Your task to perform on an android device: change your default location settings in chrome Image 0: 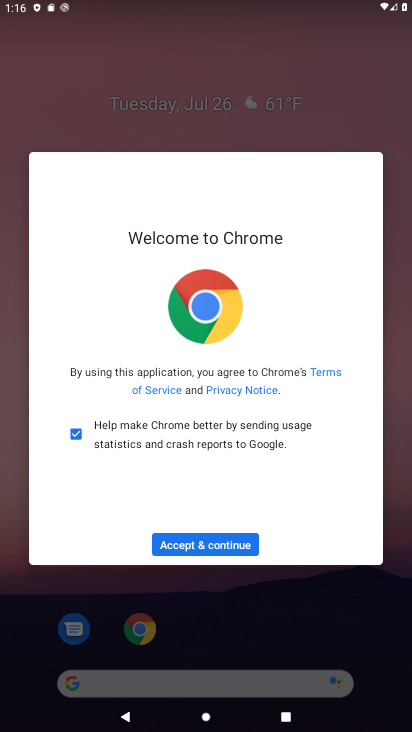
Step 0: click (218, 551)
Your task to perform on an android device: change your default location settings in chrome Image 1: 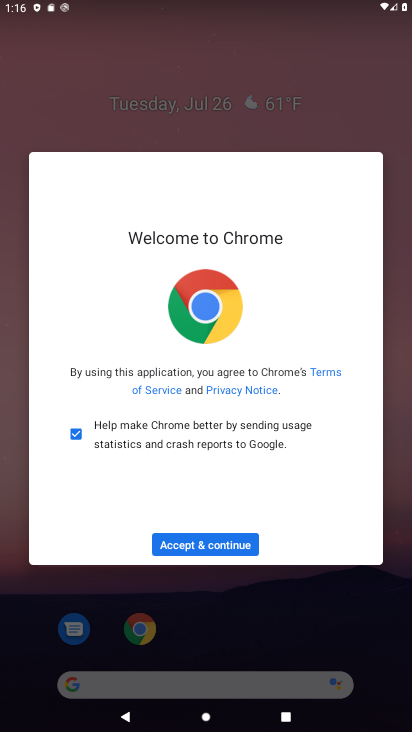
Step 1: click (218, 551)
Your task to perform on an android device: change your default location settings in chrome Image 2: 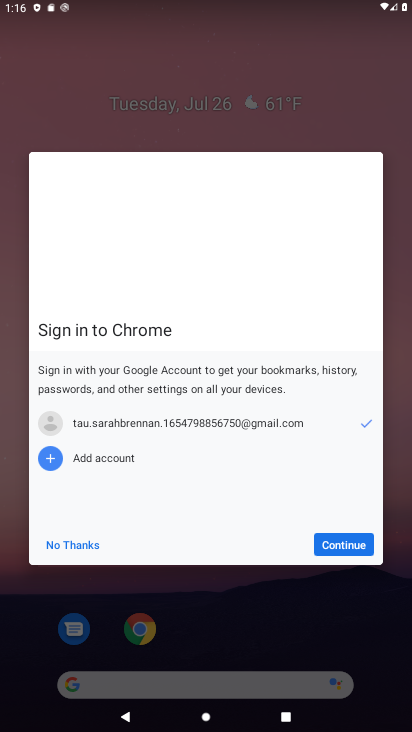
Step 2: click (218, 551)
Your task to perform on an android device: change your default location settings in chrome Image 3: 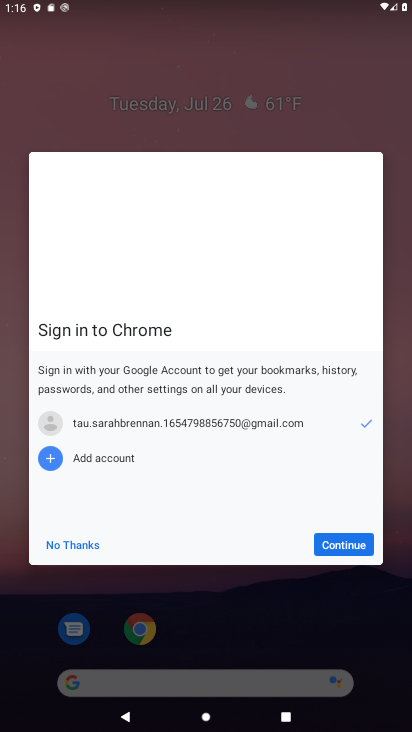
Step 3: click (218, 551)
Your task to perform on an android device: change your default location settings in chrome Image 4: 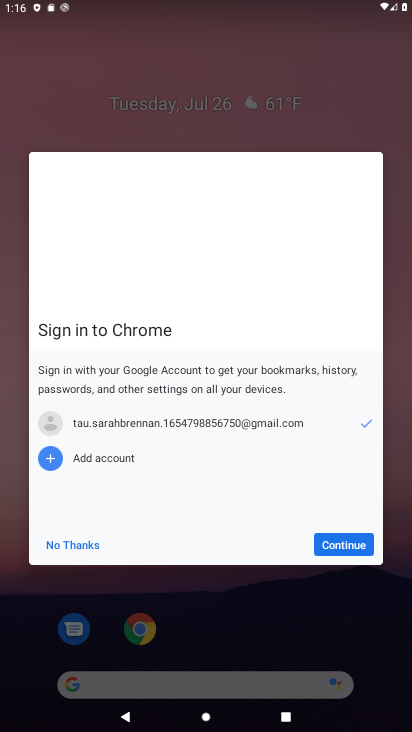
Step 4: click (218, 551)
Your task to perform on an android device: change your default location settings in chrome Image 5: 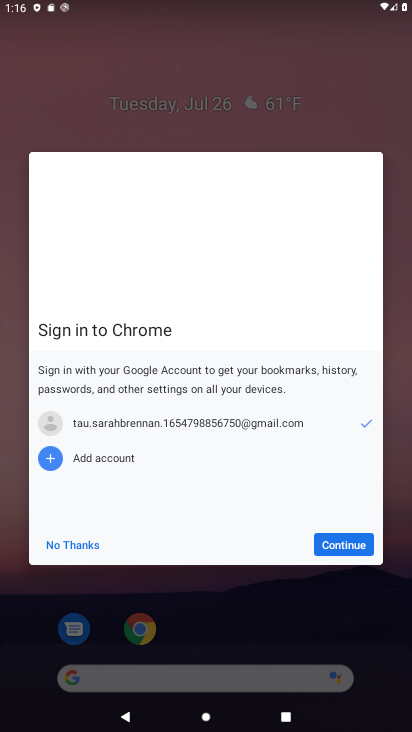
Step 5: click (325, 550)
Your task to perform on an android device: change your default location settings in chrome Image 6: 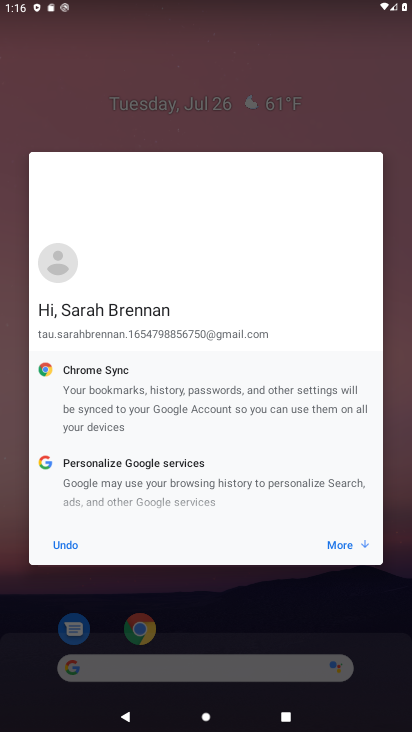
Step 6: click (325, 550)
Your task to perform on an android device: change your default location settings in chrome Image 7: 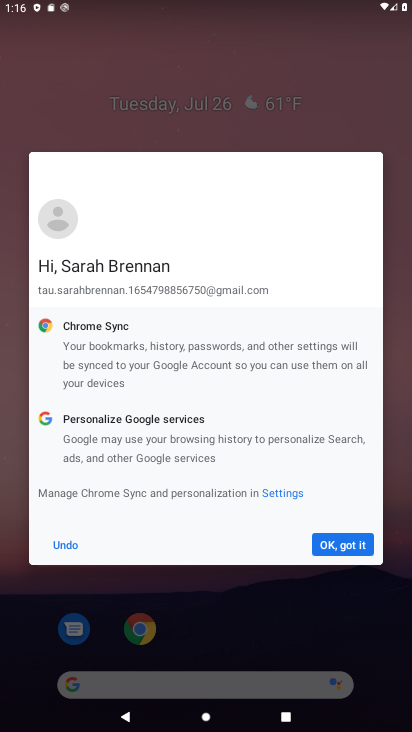
Step 7: click (325, 550)
Your task to perform on an android device: change your default location settings in chrome Image 8: 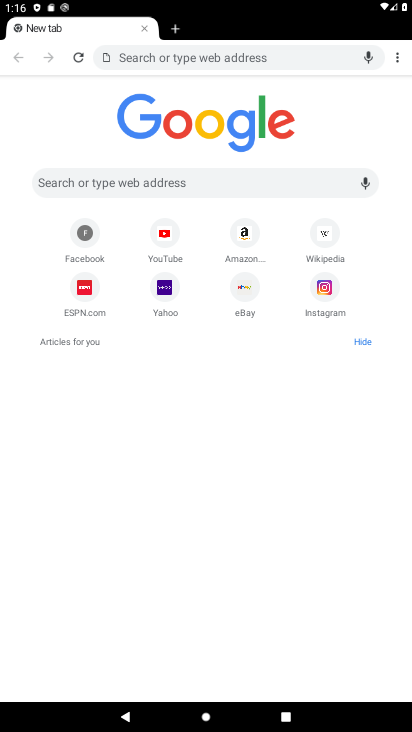
Step 8: click (394, 67)
Your task to perform on an android device: change your default location settings in chrome Image 9: 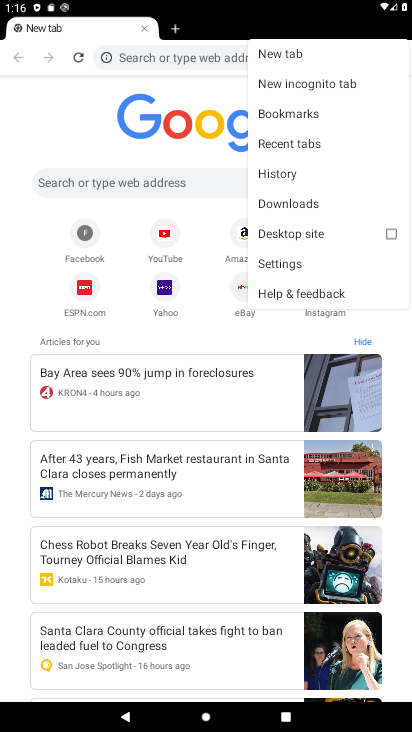
Step 9: click (295, 272)
Your task to perform on an android device: change your default location settings in chrome Image 10: 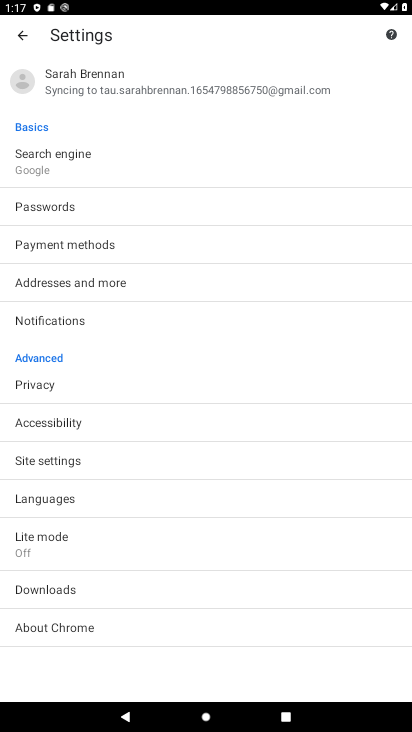
Step 10: click (64, 449)
Your task to perform on an android device: change your default location settings in chrome Image 11: 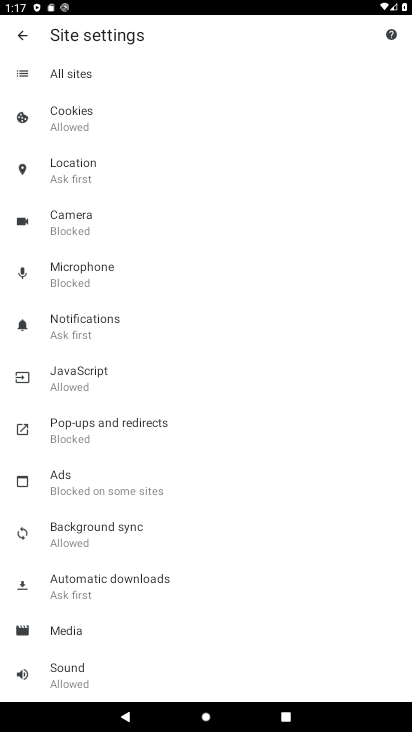
Step 11: click (65, 185)
Your task to perform on an android device: change your default location settings in chrome Image 12: 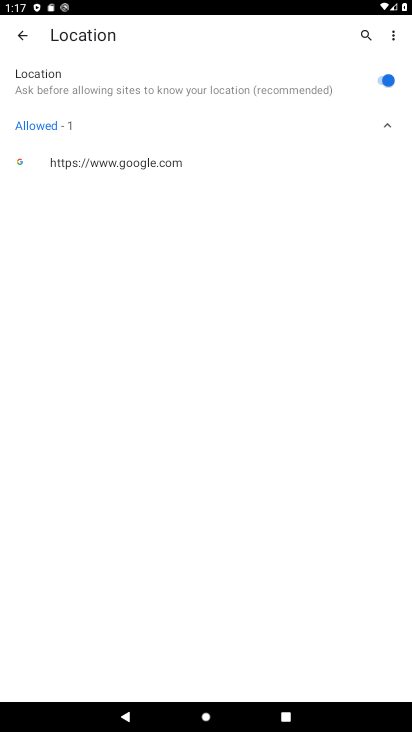
Step 12: click (388, 80)
Your task to perform on an android device: change your default location settings in chrome Image 13: 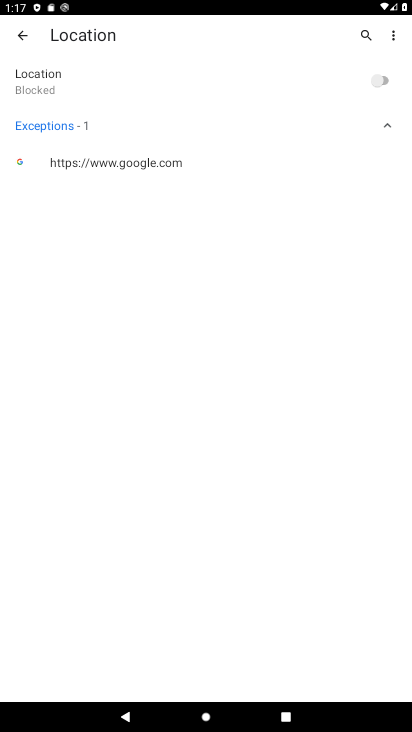
Step 13: task complete